Your task to perform on an android device: What's the weather going to be tomorrow? Image 0: 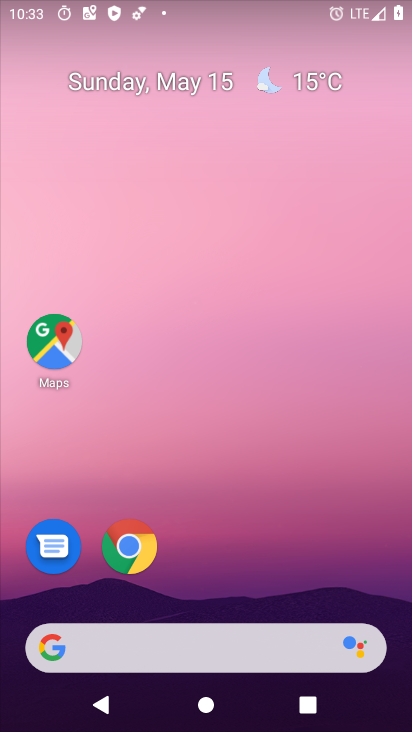
Step 0: drag from (287, 689) to (182, 202)
Your task to perform on an android device: What's the weather going to be tomorrow? Image 1: 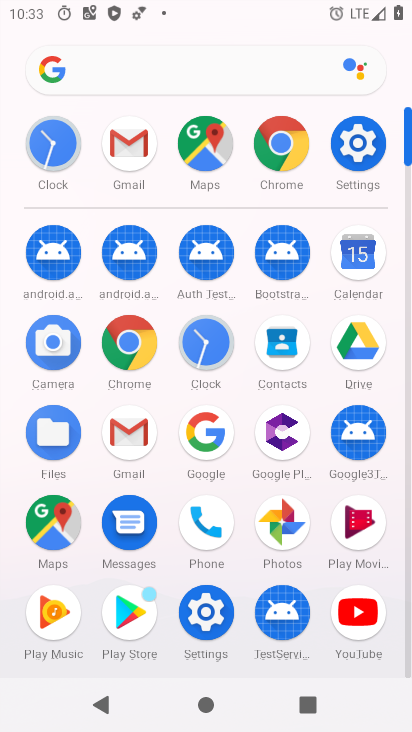
Step 1: press back button
Your task to perform on an android device: What's the weather going to be tomorrow? Image 2: 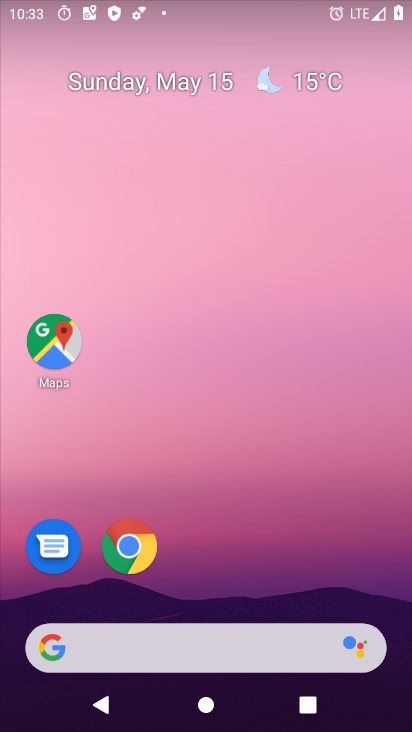
Step 2: drag from (3, 169) to (406, 332)
Your task to perform on an android device: What's the weather going to be tomorrow? Image 3: 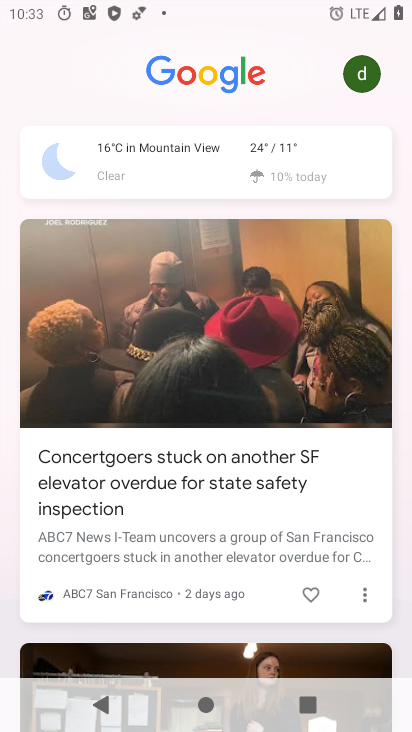
Step 3: click (133, 157)
Your task to perform on an android device: What's the weather going to be tomorrow? Image 4: 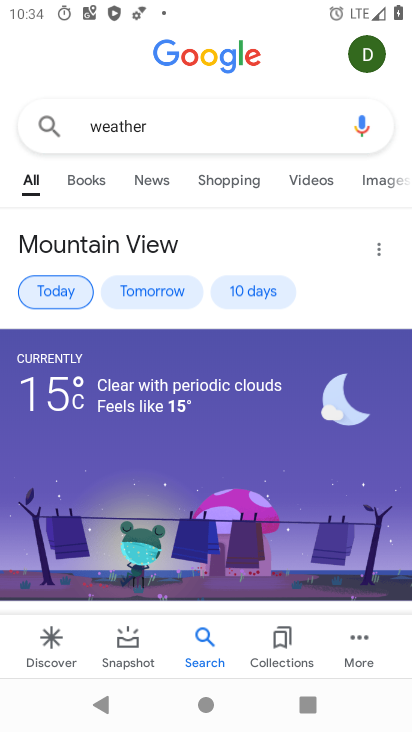
Step 4: task complete